Your task to perform on an android device: see sites visited before in the chrome app Image 0: 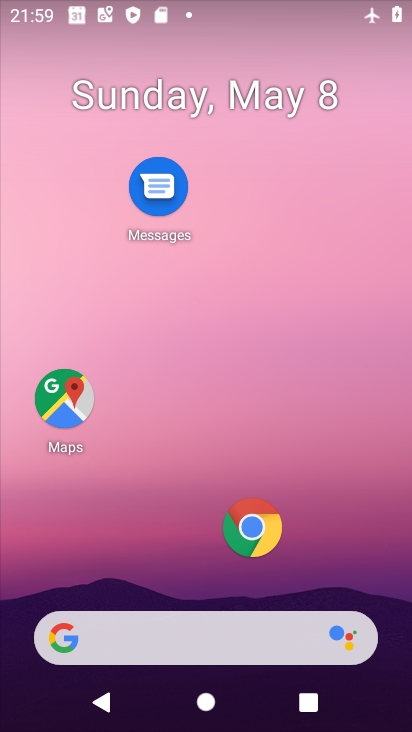
Step 0: click (249, 527)
Your task to perform on an android device: see sites visited before in the chrome app Image 1: 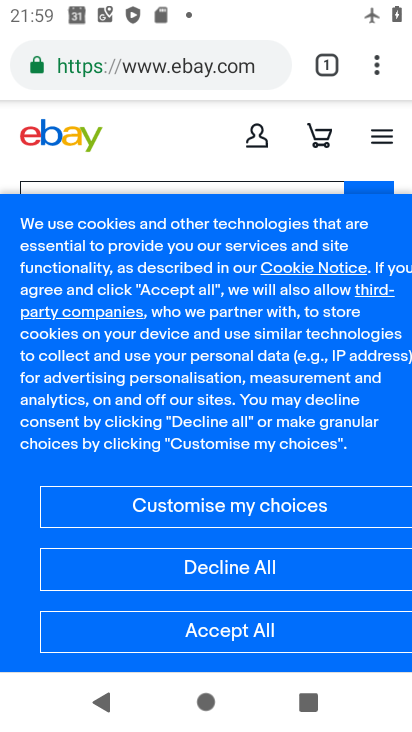
Step 1: click (370, 66)
Your task to perform on an android device: see sites visited before in the chrome app Image 2: 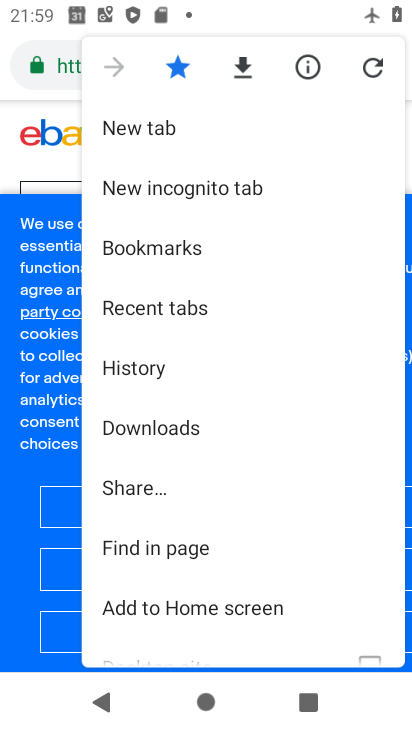
Step 2: drag from (199, 600) to (192, 63)
Your task to perform on an android device: see sites visited before in the chrome app Image 3: 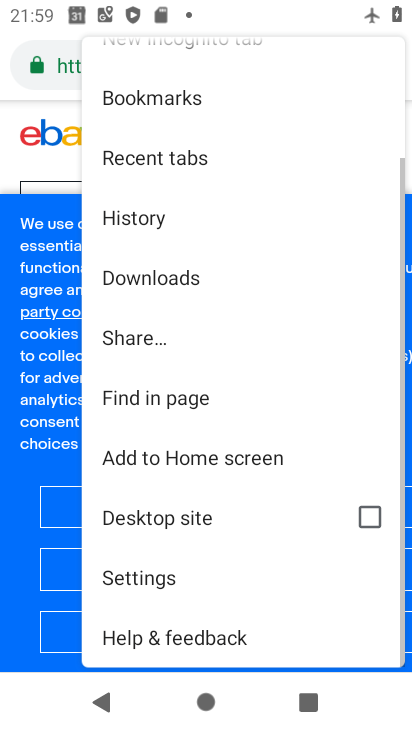
Step 3: click (129, 581)
Your task to perform on an android device: see sites visited before in the chrome app Image 4: 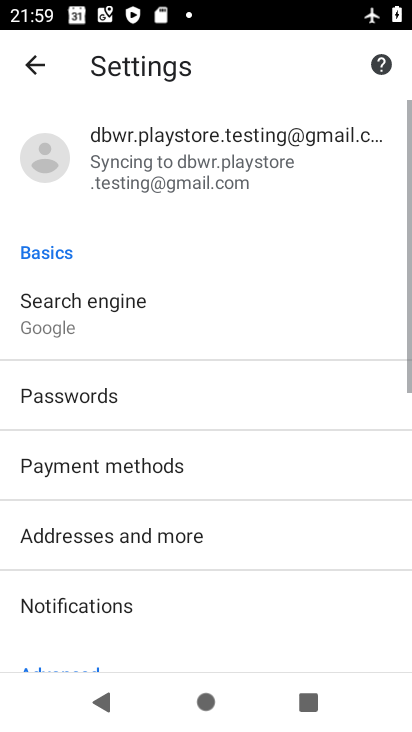
Step 4: drag from (231, 588) to (200, 259)
Your task to perform on an android device: see sites visited before in the chrome app Image 5: 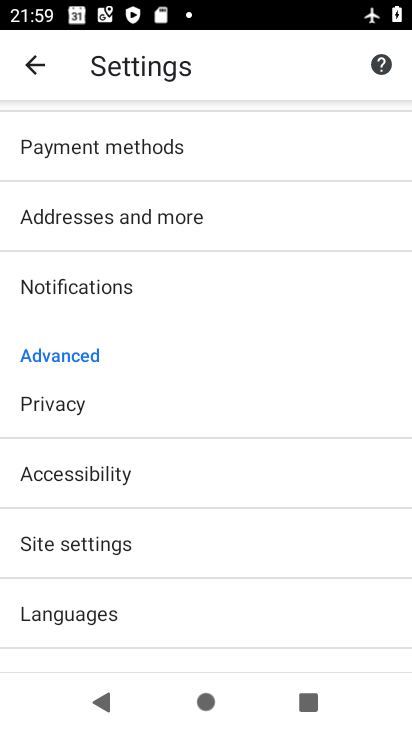
Step 5: drag from (142, 98) to (155, 470)
Your task to perform on an android device: see sites visited before in the chrome app Image 6: 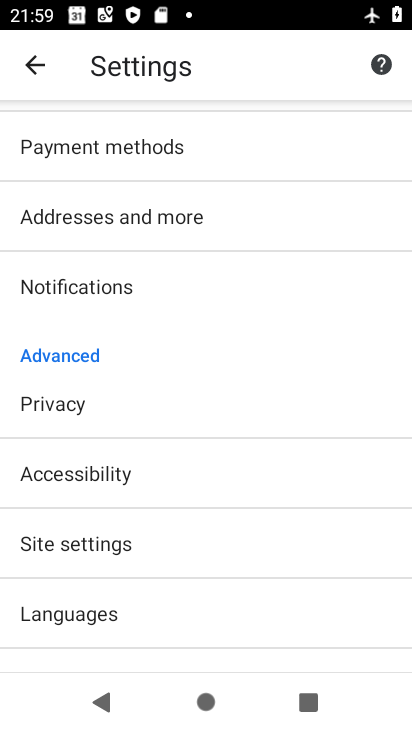
Step 6: drag from (122, 164) to (133, 73)
Your task to perform on an android device: see sites visited before in the chrome app Image 7: 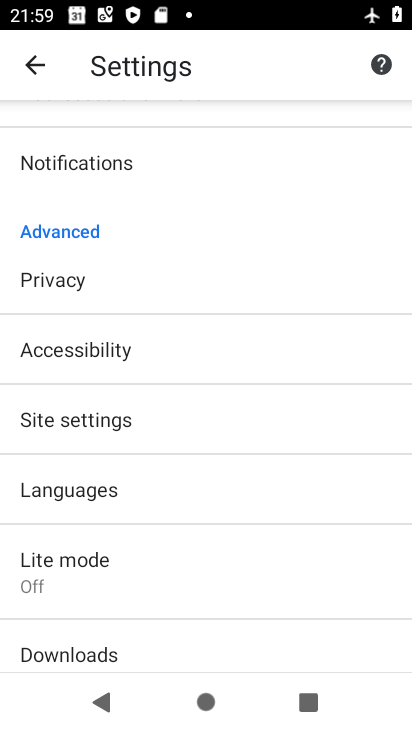
Step 7: press back button
Your task to perform on an android device: see sites visited before in the chrome app Image 8: 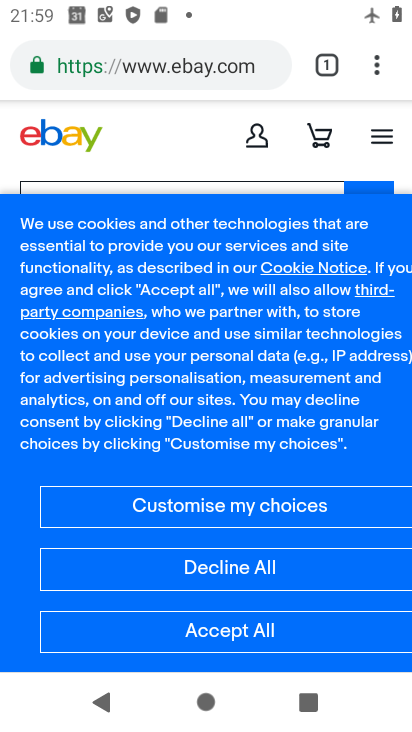
Step 8: click (364, 70)
Your task to perform on an android device: see sites visited before in the chrome app Image 9: 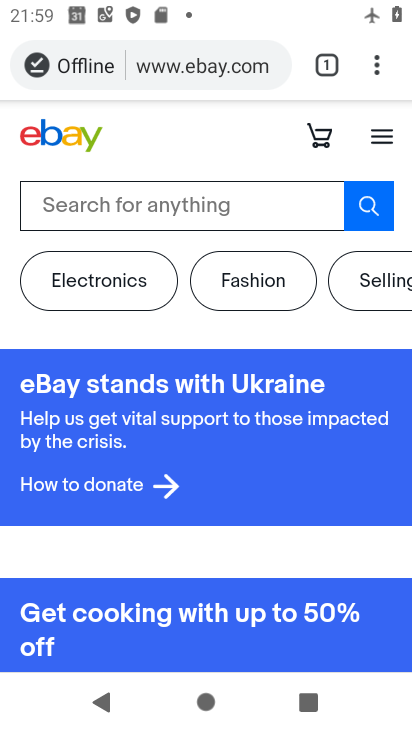
Step 9: click (363, 69)
Your task to perform on an android device: see sites visited before in the chrome app Image 10: 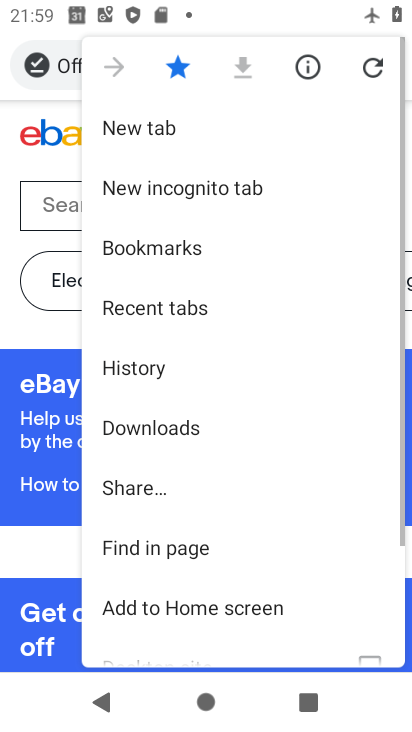
Step 10: click (146, 380)
Your task to perform on an android device: see sites visited before in the chrome app Image 11: 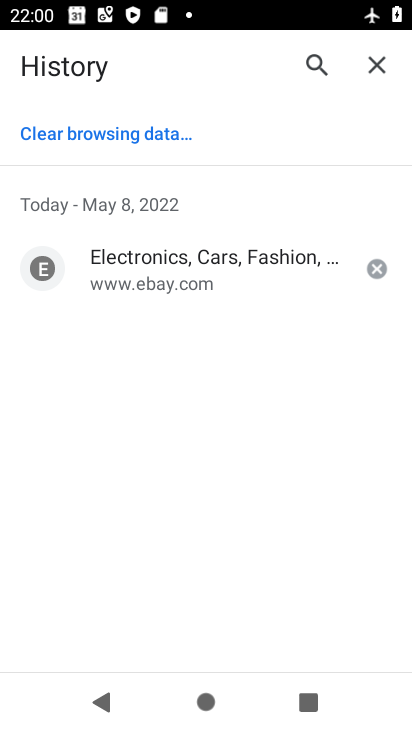
Step 11: task complete